Your task to perform on an android device: set the stopwatch Image 0: 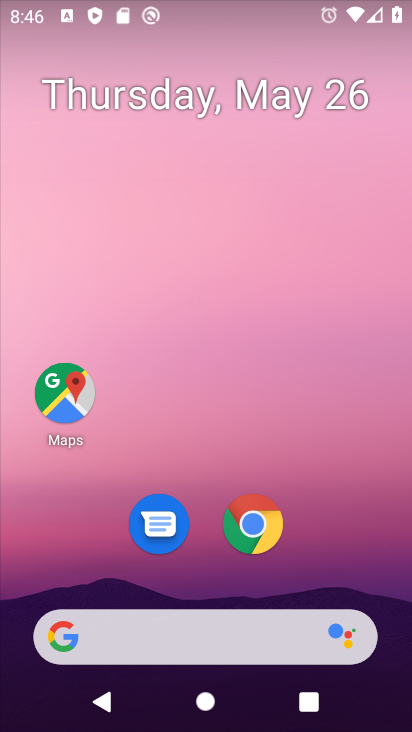
Step 0: drag from (217, 487) to (230, 12)
Your task to perform on an android device: set the stopwatch Image 1: 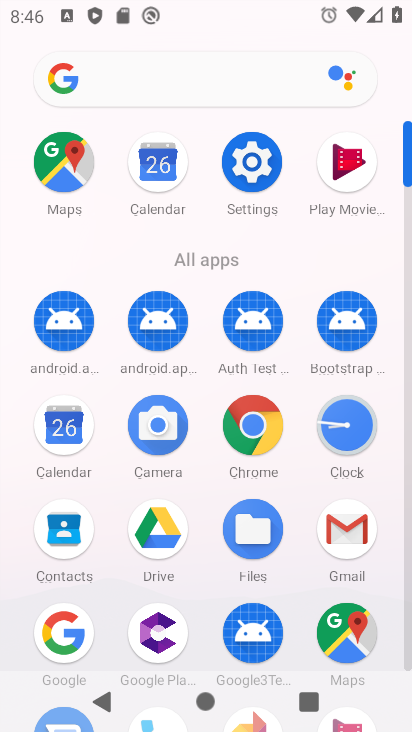
Step 1: click (348, 424)
Your task to perform on an android device: set the stopwatch Image 2: 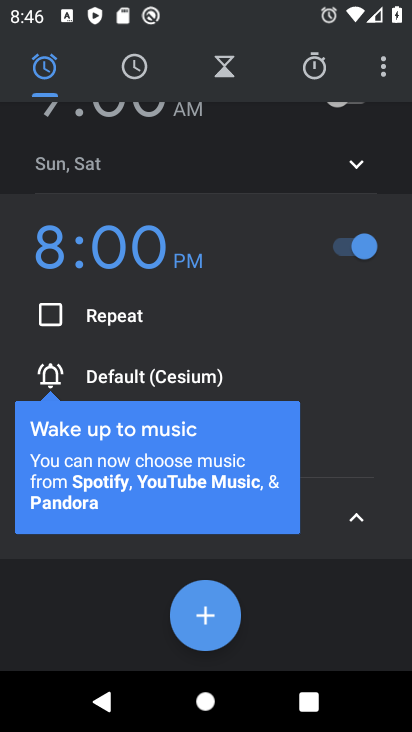
Step 2: click (321, 68)
Your task to perform on an android device: set the stopwatch Image 3: 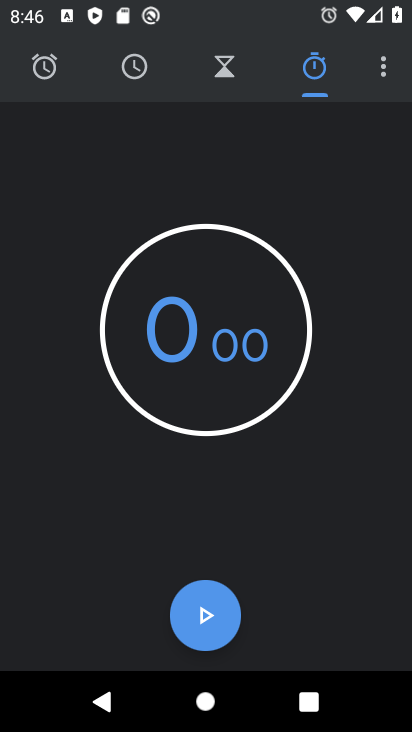
Step 3: task complete